Your task to perform on an android device: Search for pizza restaurants on Maps Image 0: 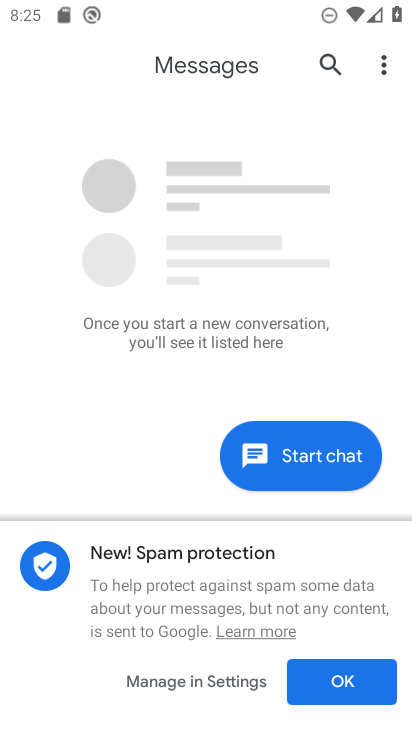
Step 0: click (380, 687)
Your task to perform on an android device: Search for pizza restaurants on Maps Image 1: 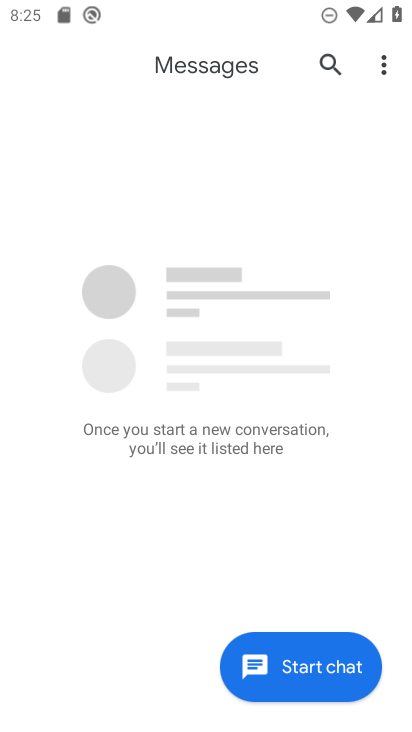
Step 1: press back button
Your task to perform on an android device: Search for pizza restaurants on Maps Image 2: 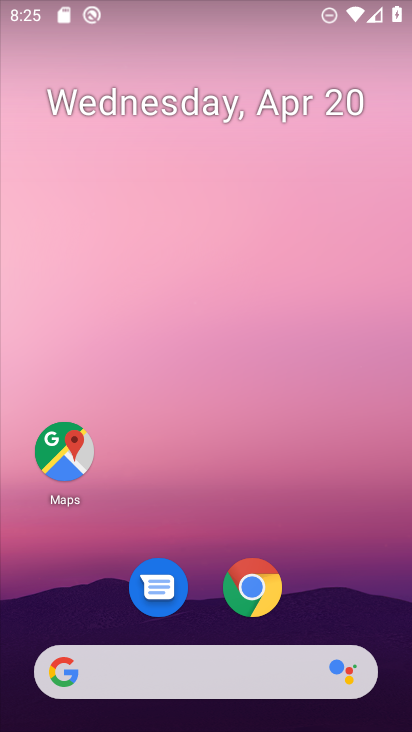
Step 2: click (65, 459)
Your task to perform on an android device: Search for pizza restaurants on Maps Image 3: 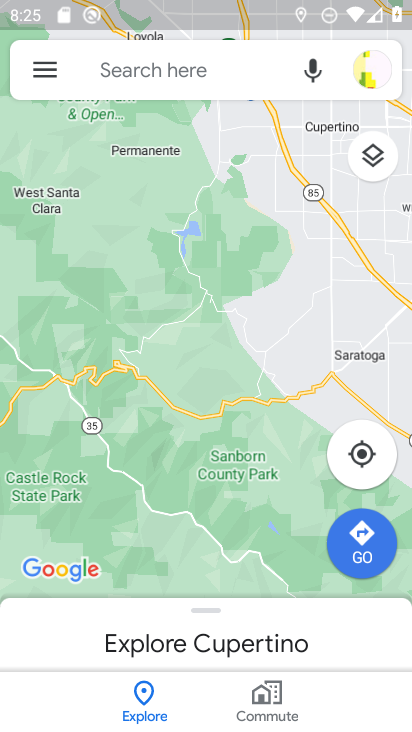
Step 3: click (203, 88)
Your task to perform on an android device: Search for pizza restaurants on Maps Image 4: 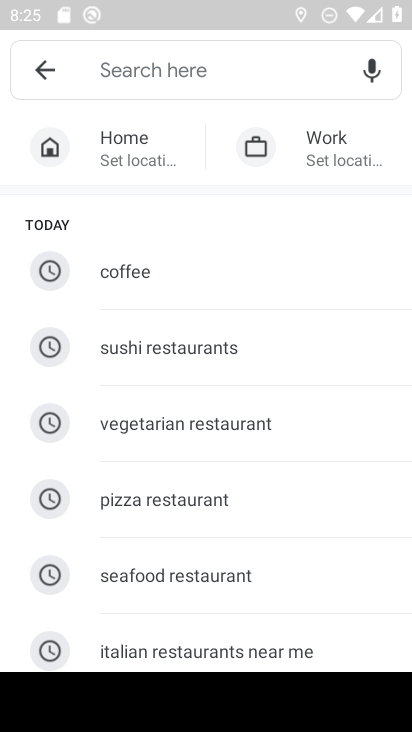
Step 4: click (180, 492)
Your task to perform on an android device: Search for pizza restaurants on Maps Image 5: 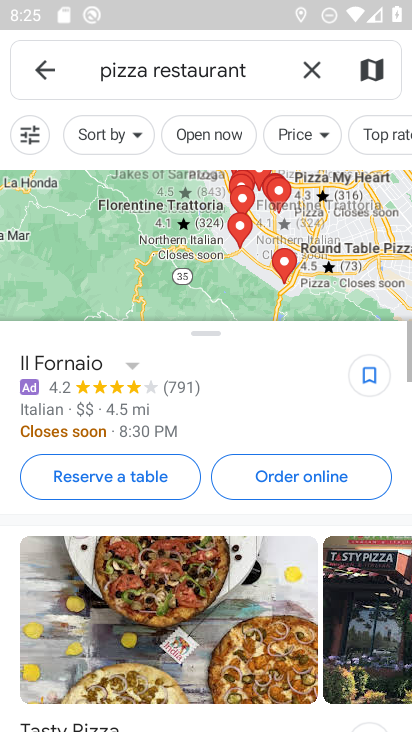
Step 5: task complete